Your task to perform on an android device: Open location settings Image 0: 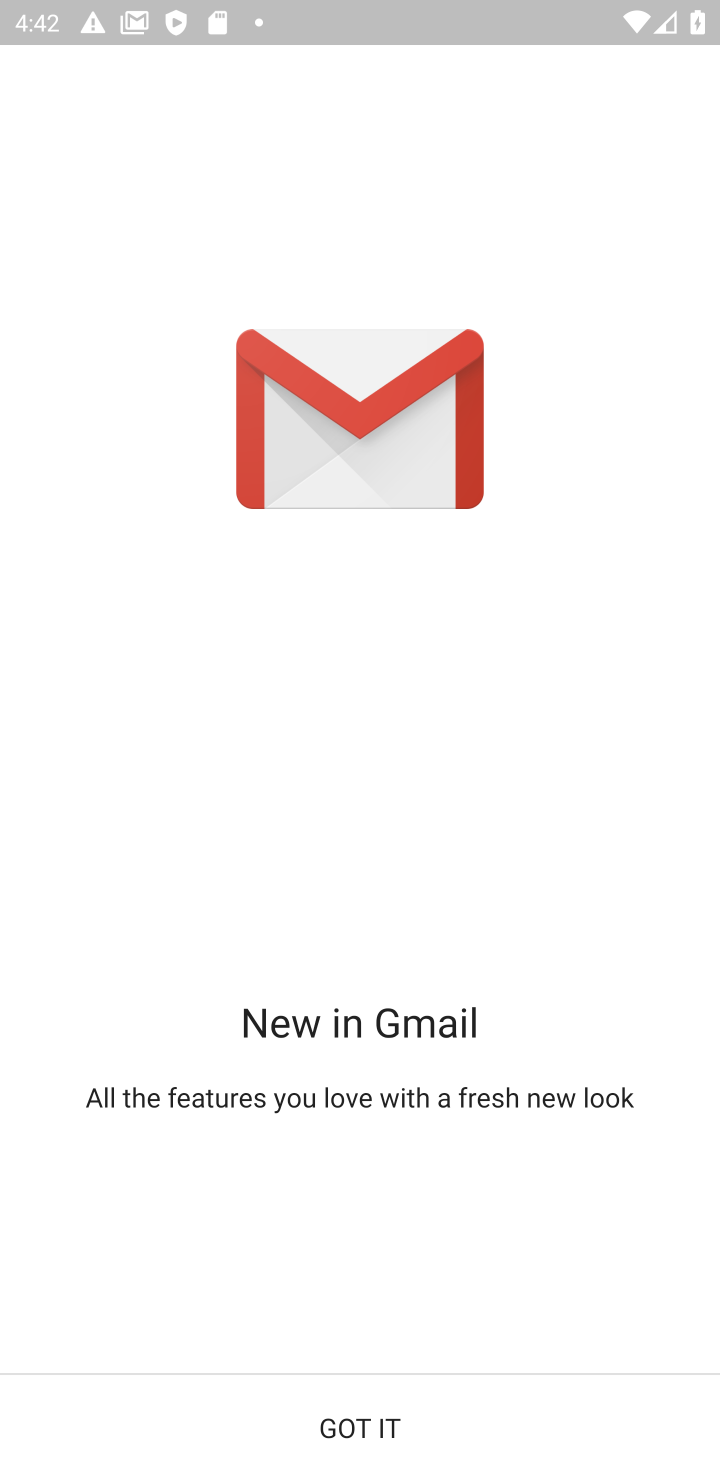
Step 0: press home button
Your task to perform on an android device: Open location settings Image 1: 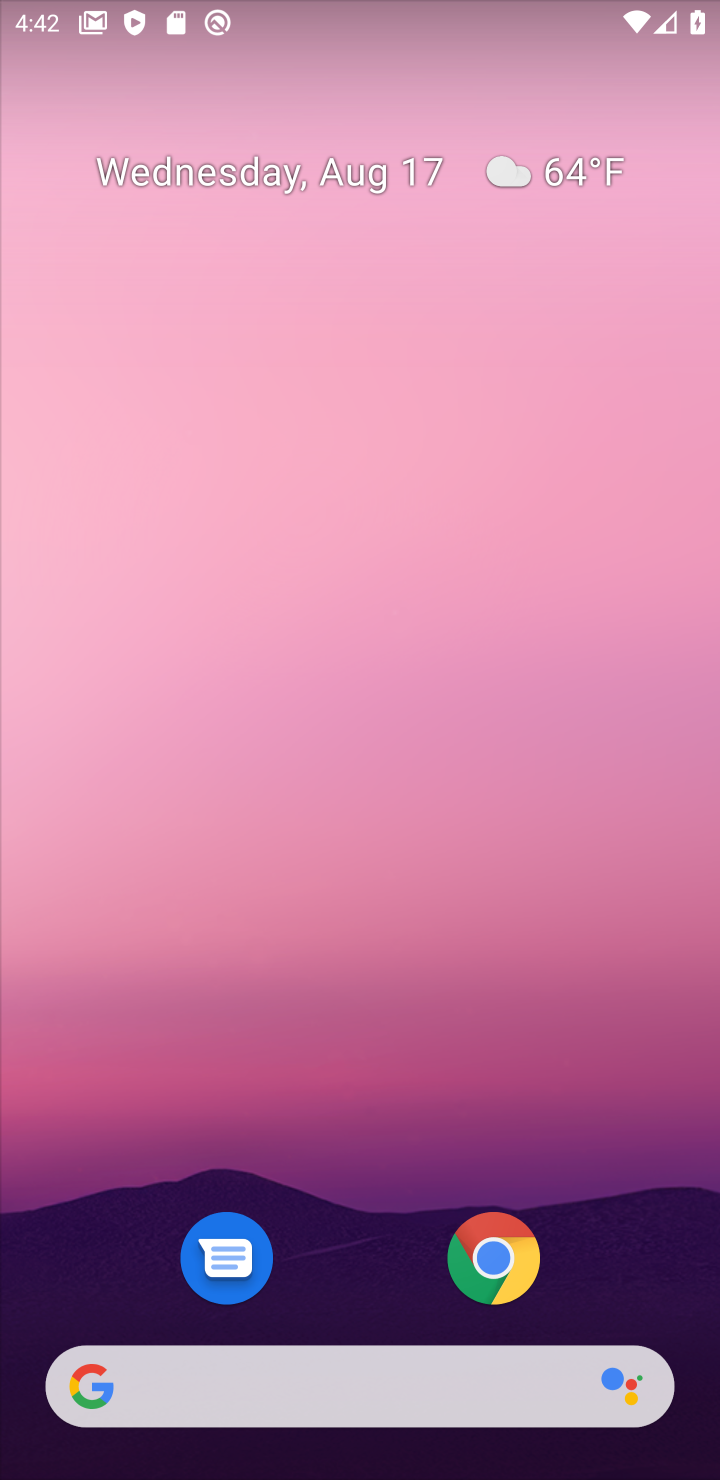
Step 1: drag from (276, 774) to (301, 82)
Your task to perform on an android device: Open location settings Image 2: 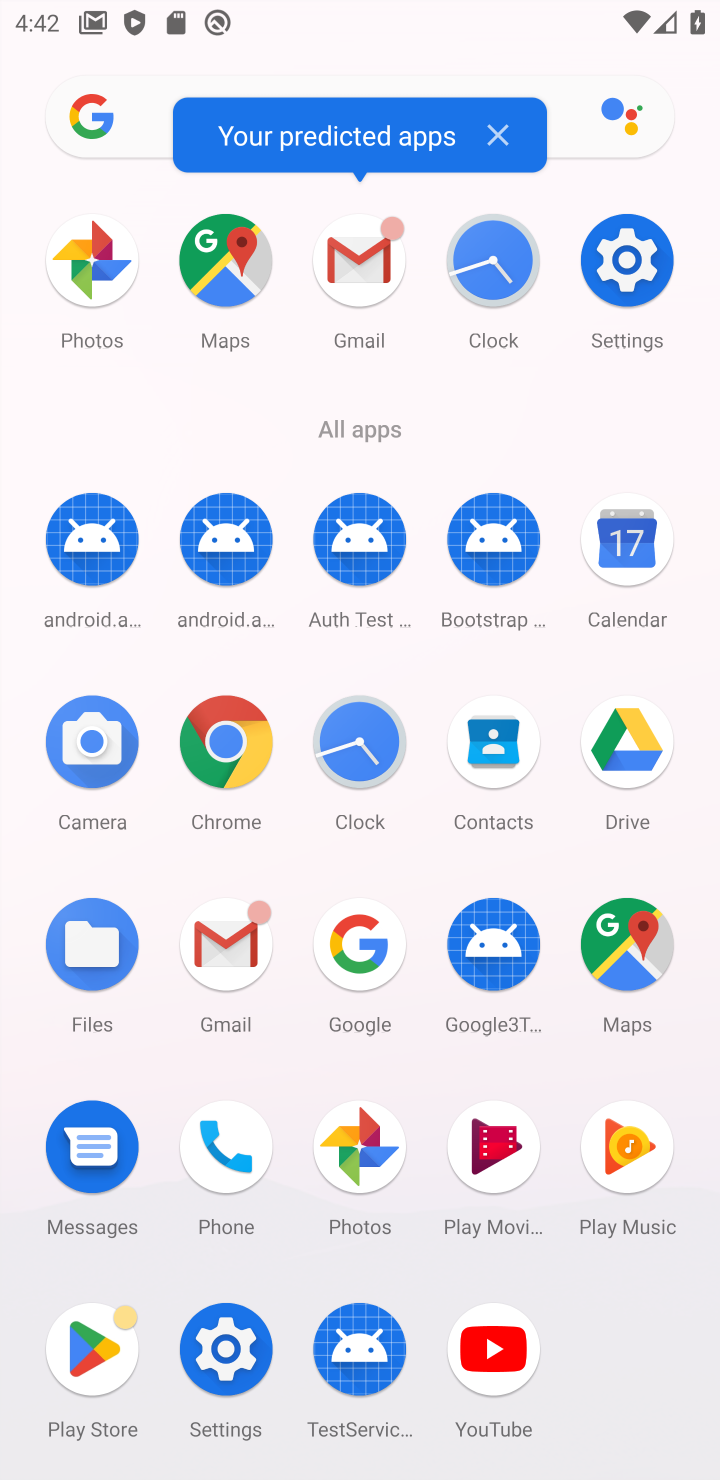
Step 2: click (233, 1365)
Your task to perform on an android device: Open location settings Image 3: 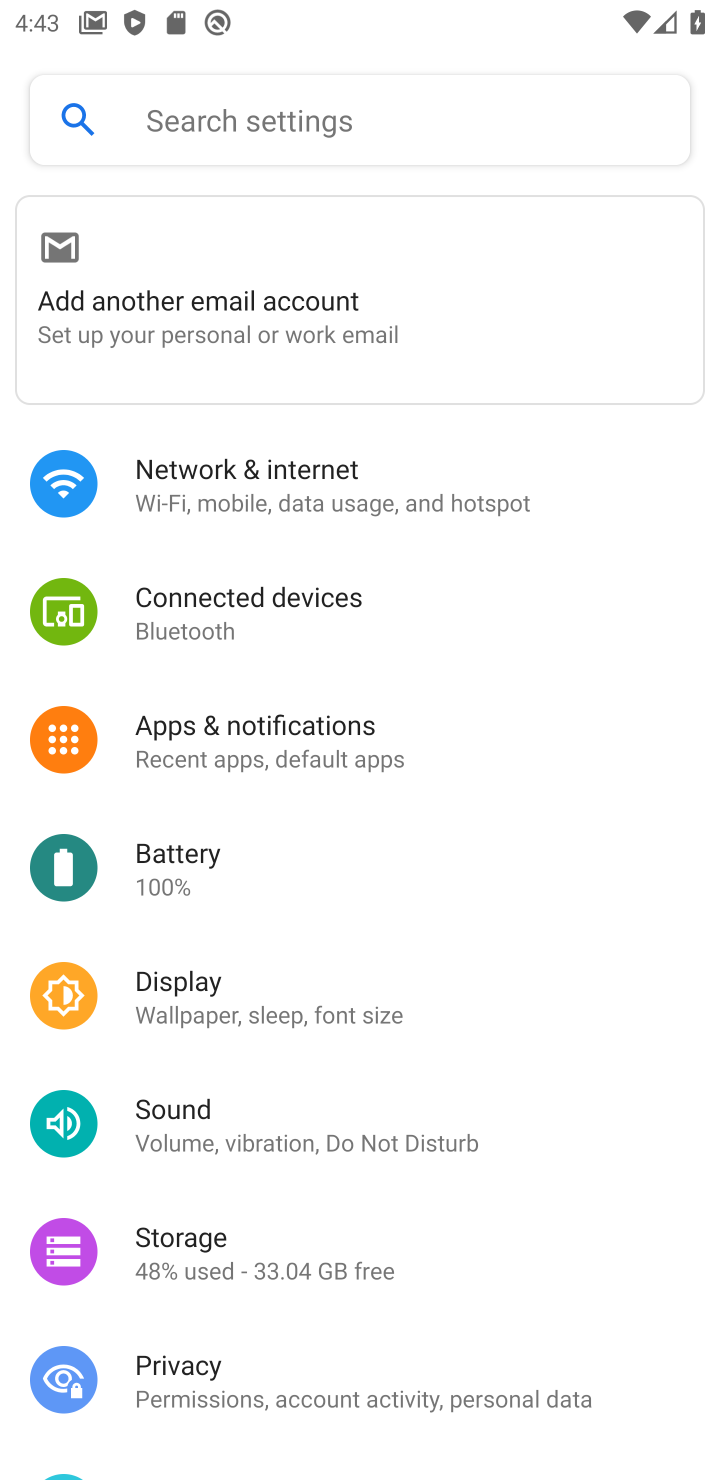
Step 3: drag from (366, 1340) to (430, 542)
Your task to perform on an android device: Open location settings Image 4: 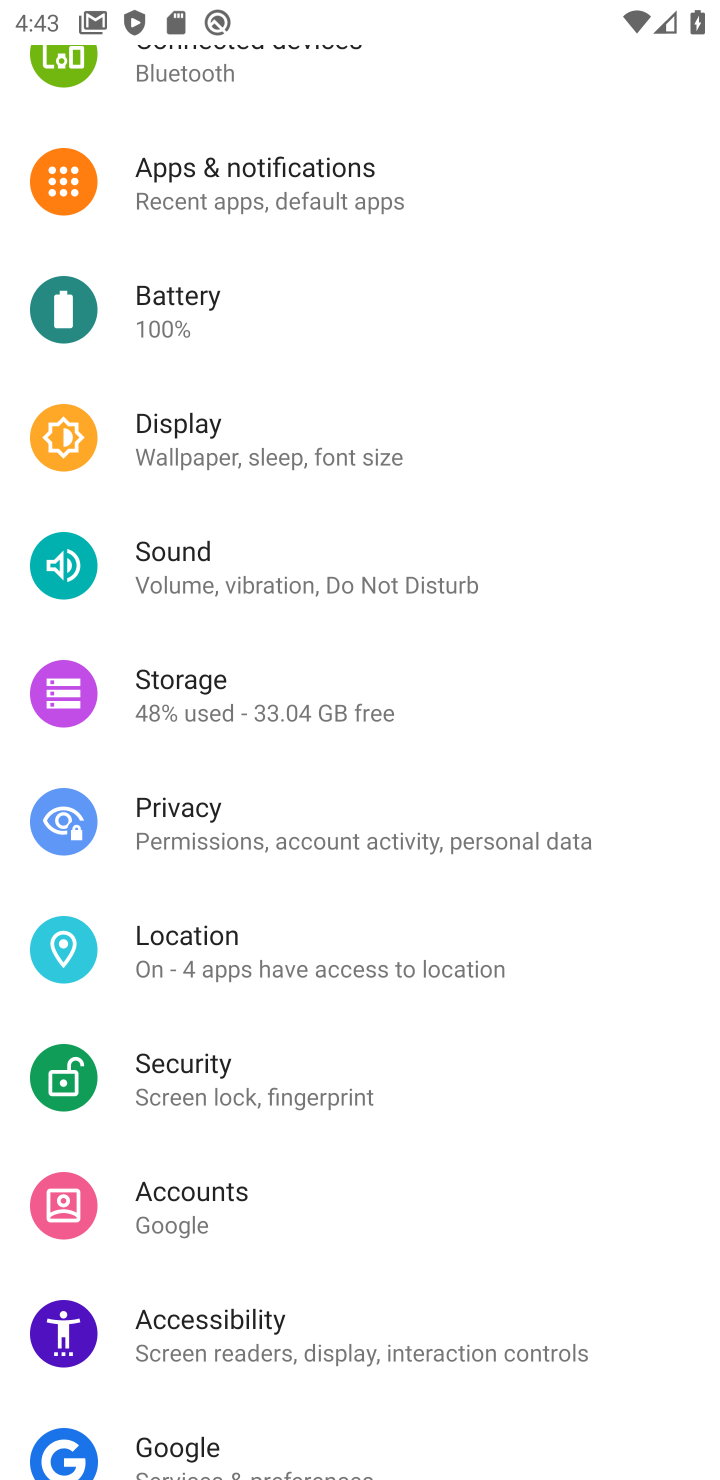
Step 4: click (305, 963)
Your task to perform on an android device: Open location settings Image 5: 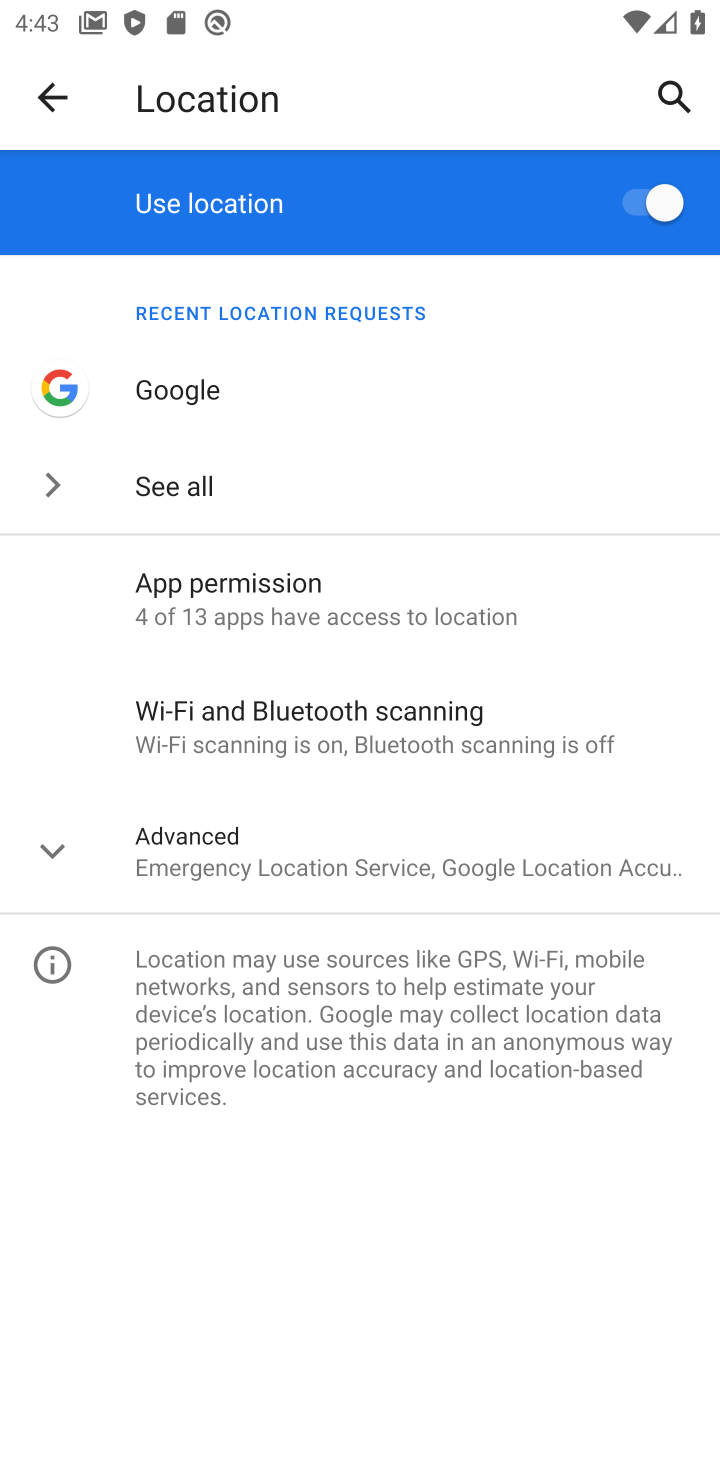
Step 5: click (425, 857)
Your task to perform on an android device: Open location settings Image 6: 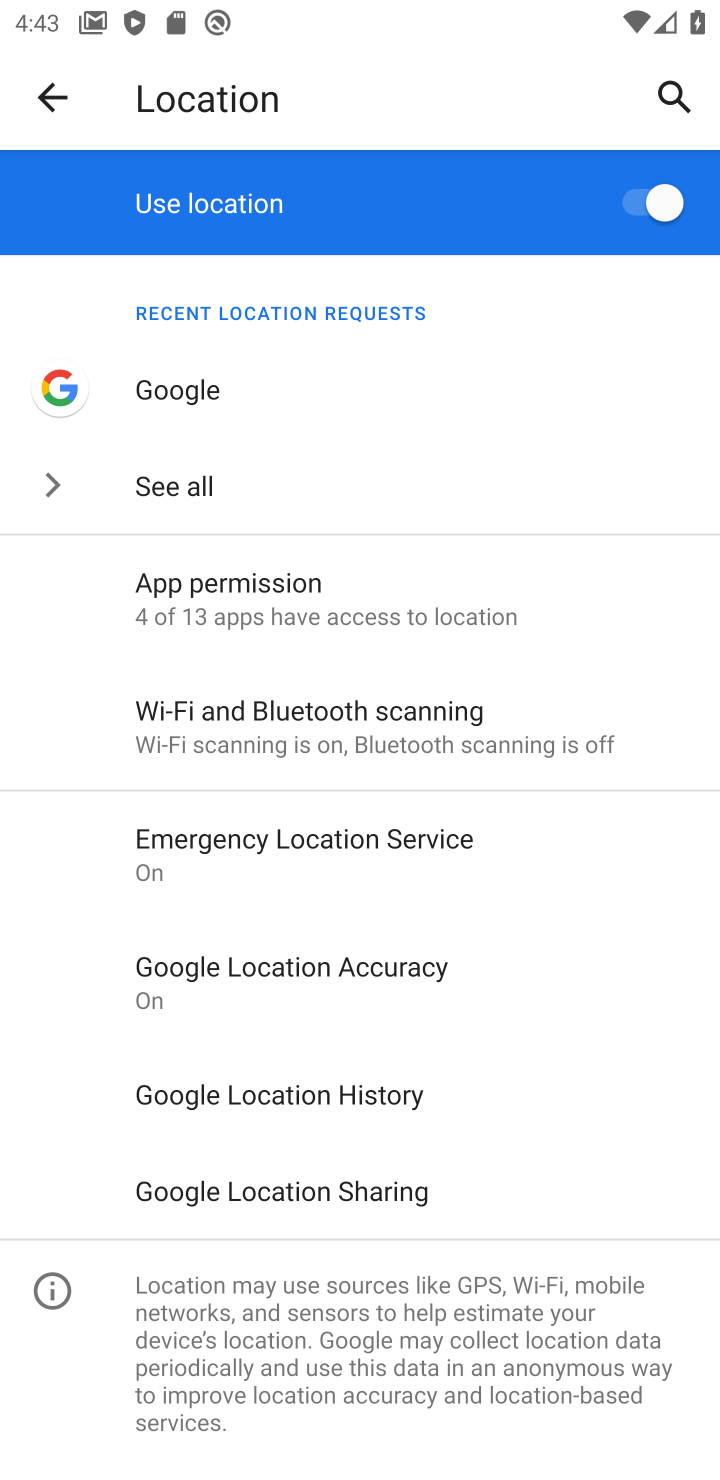
Step 6: task complete